Your task to perform on an android device: turn on javascript in the chrome app Image 0: 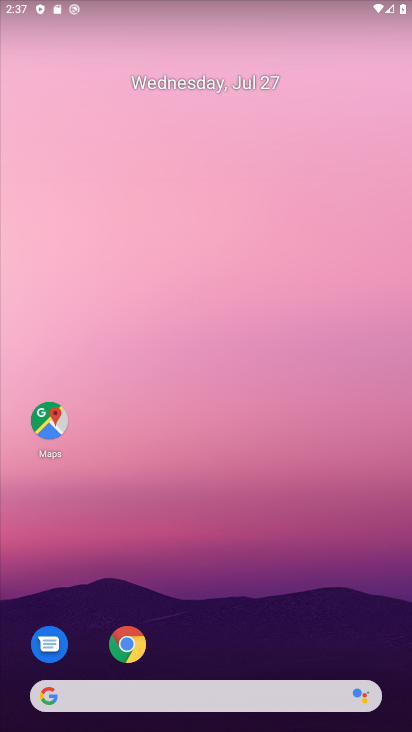
Step 0: drag from (225, 589) to (348, 19)
Your task to perform on an android device: turn on javascript in the chrome app Image 1: 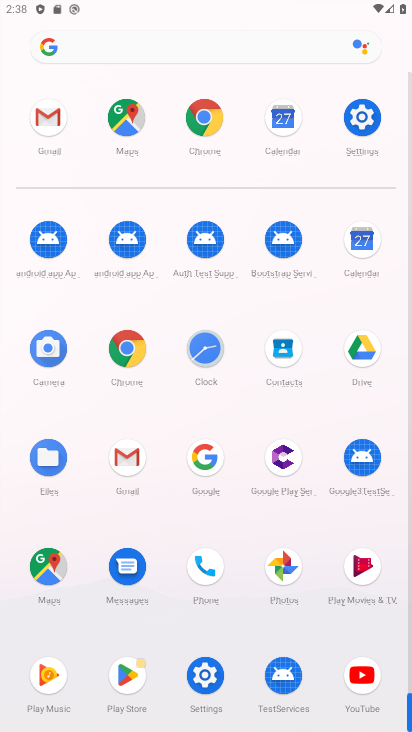
Step 1: click (131, 367)
Your task to perform on an android device: turn on javascript in the chrome app Image 2: 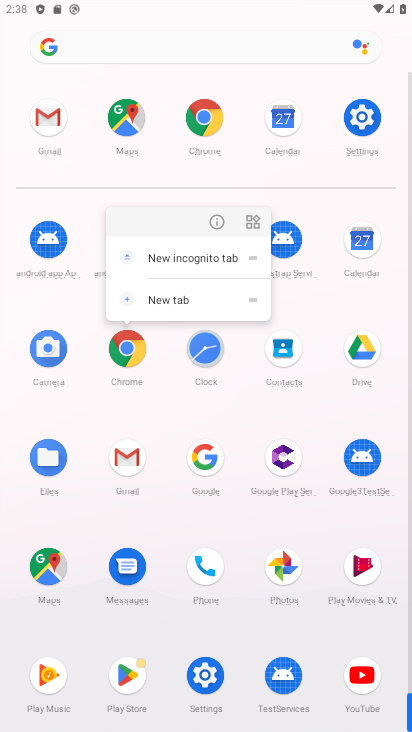
Step 2: click (120, 357)
Your task to perform on an android device: turn on javascript in the chrome app Image 3: 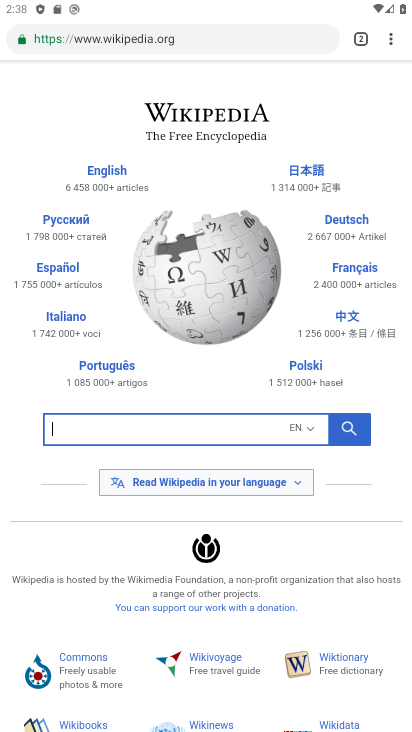
Step 3: click (395, 37)
Your task to perform on an android device: turn on javascript in the chrome app Image 4: 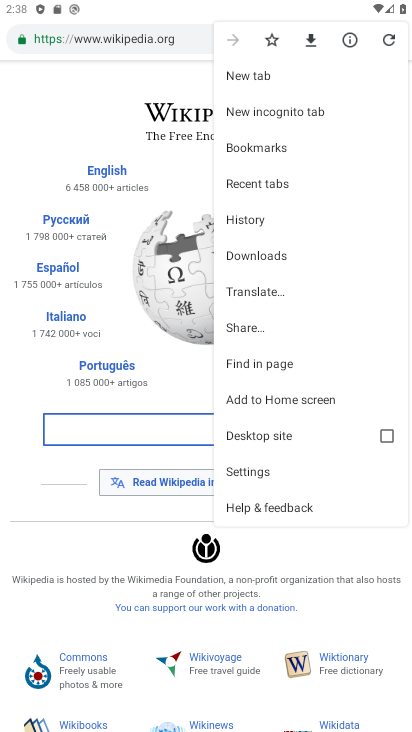
Step 4: click (247, 467)
Your task to perform on an android device: turn on javascript in the chrome app Image 5: 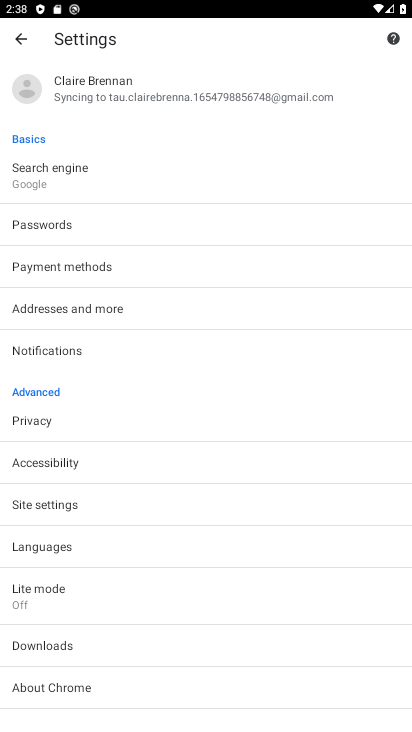
Step 5: click (63, 500)
Your task to perform on an android device: turn on javascript in the chrome app Image 6: 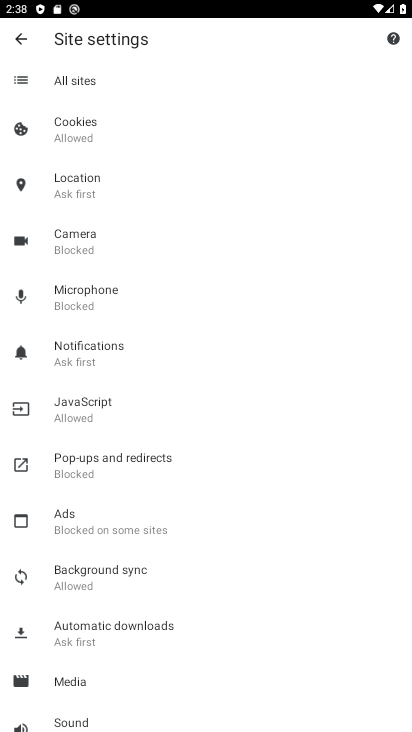
Step 6: click (100, 410)
Your task to perform on an android device: turn on javascript in the chrome app Image 7: 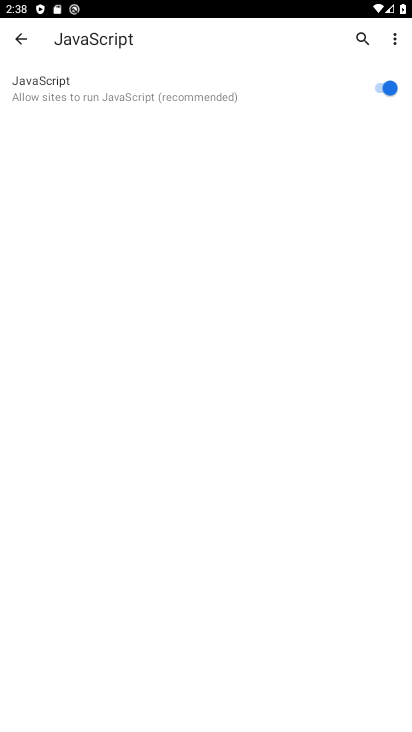
Step 7: task complete